Your task to perform on an android device: Turn off the flashlight Image 0: 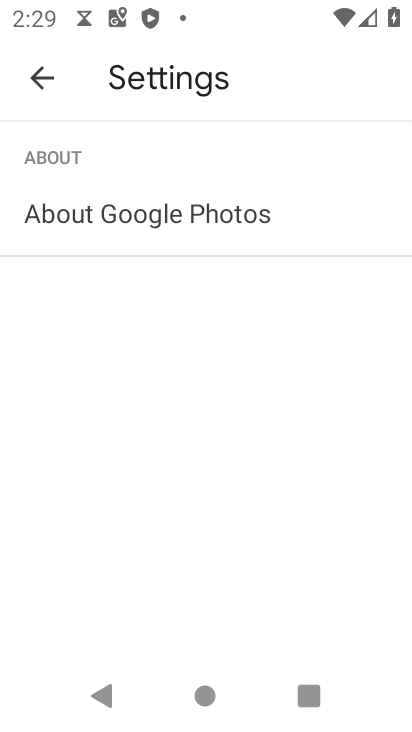
Step 0: drag from (298, 7) to (255, 615)
Your task to perform on an android device: Turn off the flashlight Image 1: 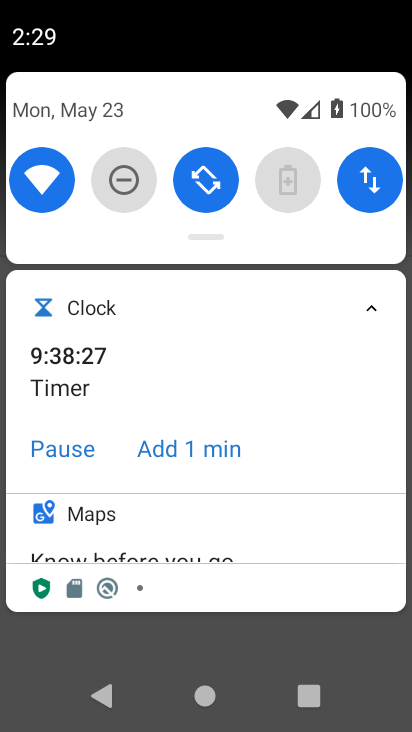
Step 1: drag from (254, 211) to (244, 527)
Your task to perform on an android device: Turn off the flashlight Image 2: 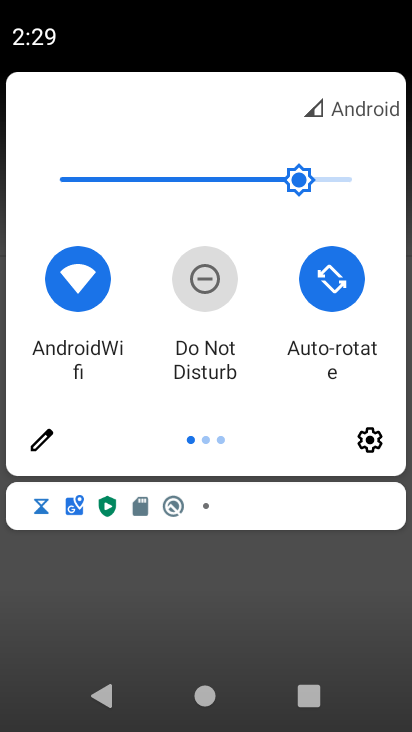
Step 2: click (46, 430)
Your task to perform on an android device: Turn off the flashlight Image 3: 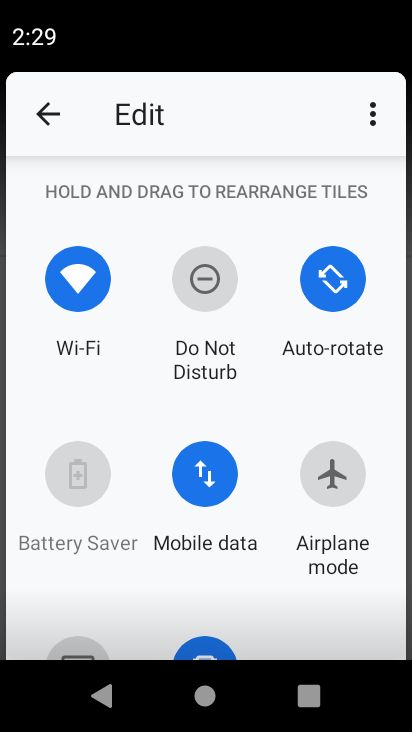
Step 3: task complete